Your task to perform on an android device: When is my next appointment? Image 0: 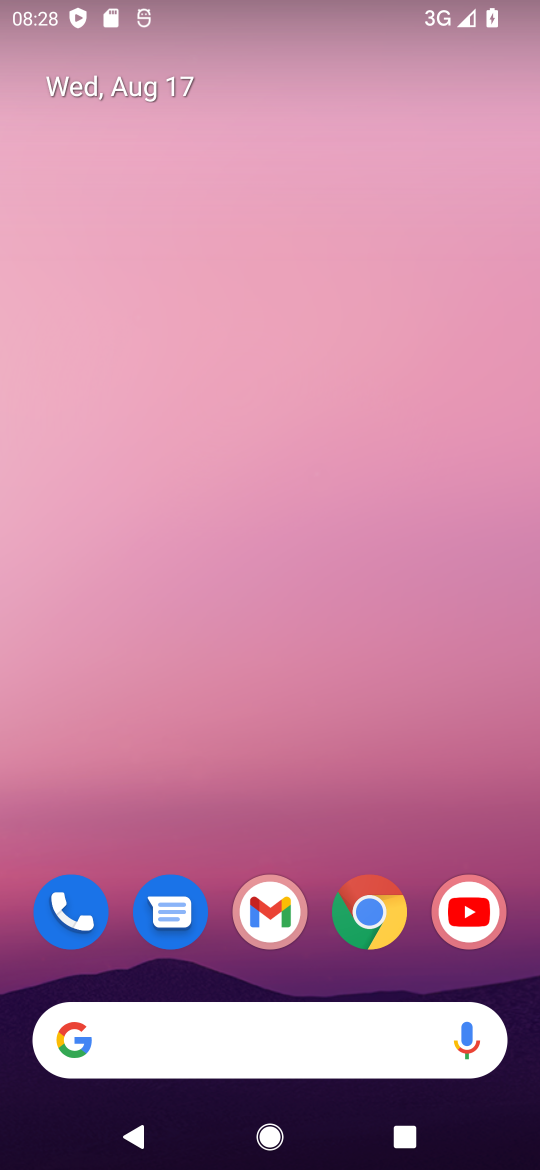
Step 0: drag from (261, 948) to (261, 424)
Your task to perform on an android device: When is my next appointment? Image 1: 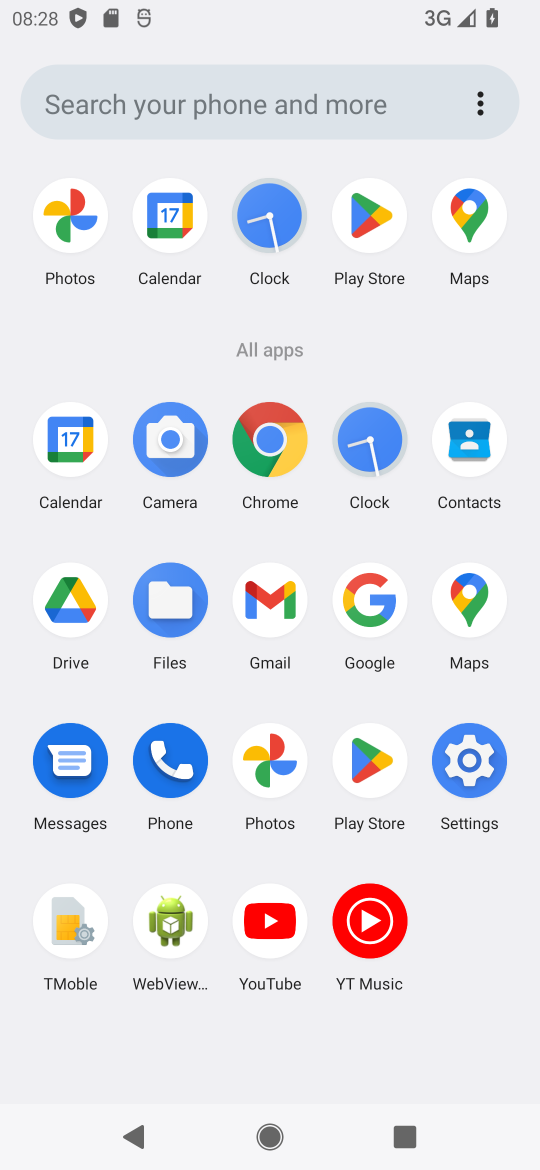
Step 1: click (51, 440)
Your task to perform on an android device: When is my next appointment? Image 2: 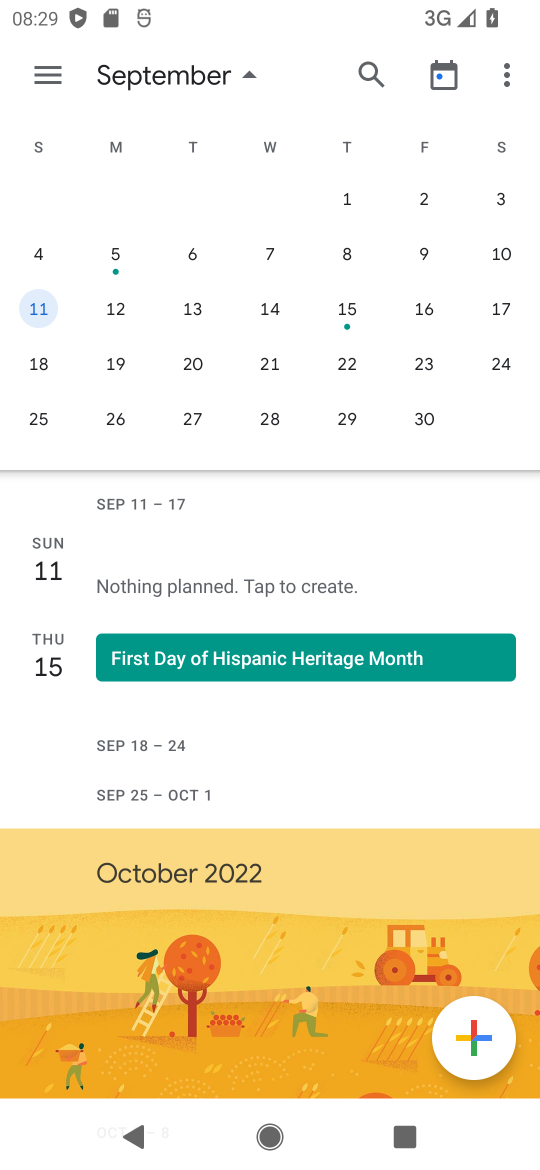
Step 2: task complete